Your task to perform on an android device: What's on my calendar tomorrow? Image 0: 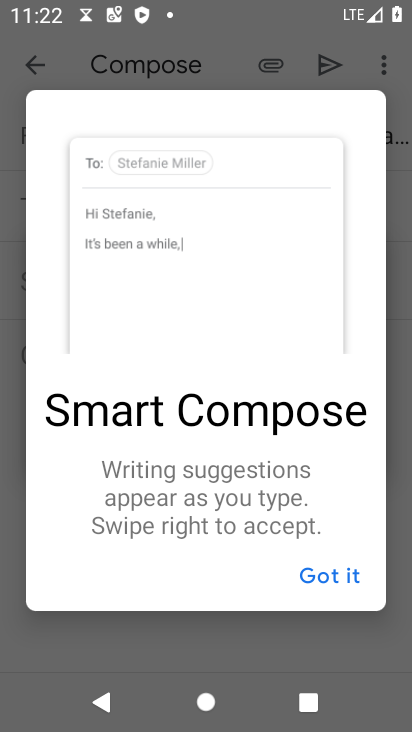
Step 0: press home button
Your task to perform on an android device: What's on my calendar tomorrow? Image 1: 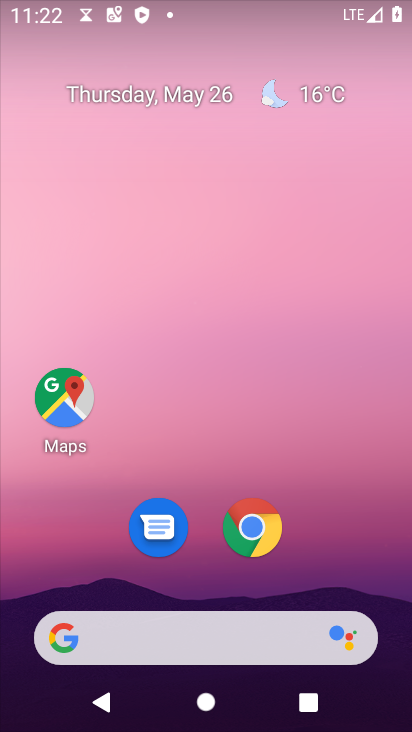
Step 1: drag from (308, 588) to (303, 101)
Your task to perform on an android device: What's on my calendar tomorrow? Image 2: 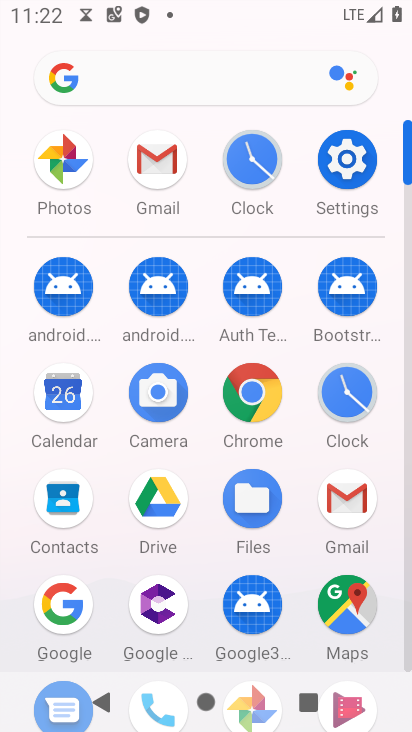
Step 2: click (68, 396)
Your task to perform on an android device: What's on my calendar tomorrow? Image 3: 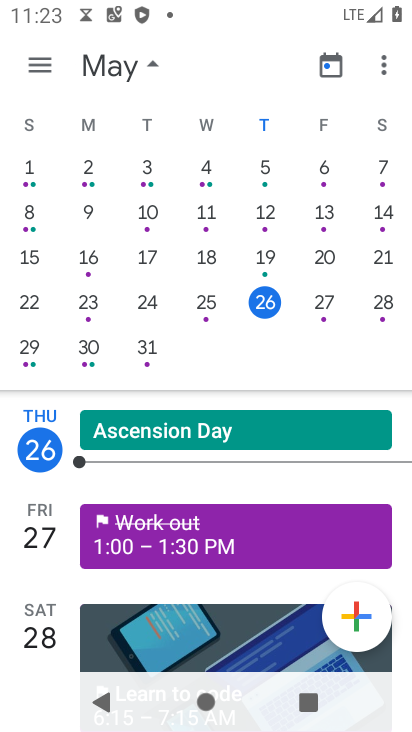
Step 3: click (335, 308)
Your task to perform on an android device: What's on my calendar tomorrow? Image 4: 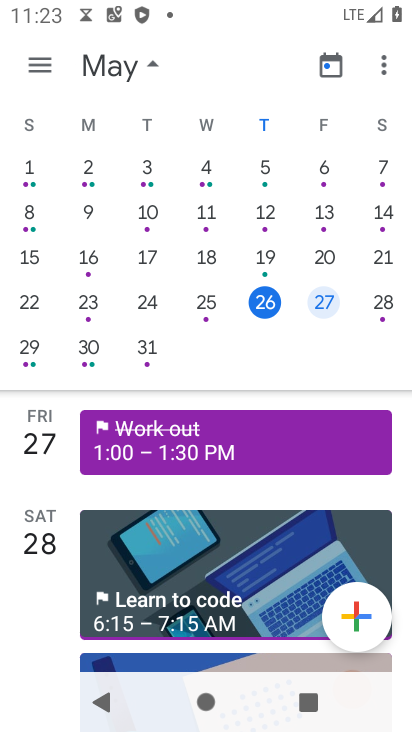
Step 4: task complete